Your task to perform on an android device: Do I have any events tomorrow? Image 0: 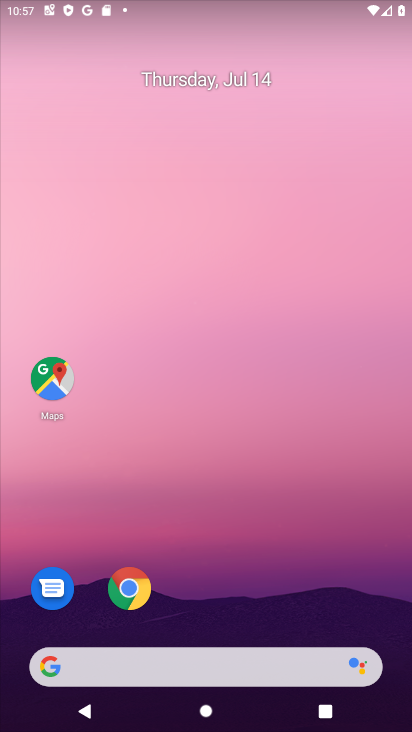
Step 0: drag from (179, 628) to (289, 137)
Your task to perform on an android device: Do I have any events tomorrow? Image 1: 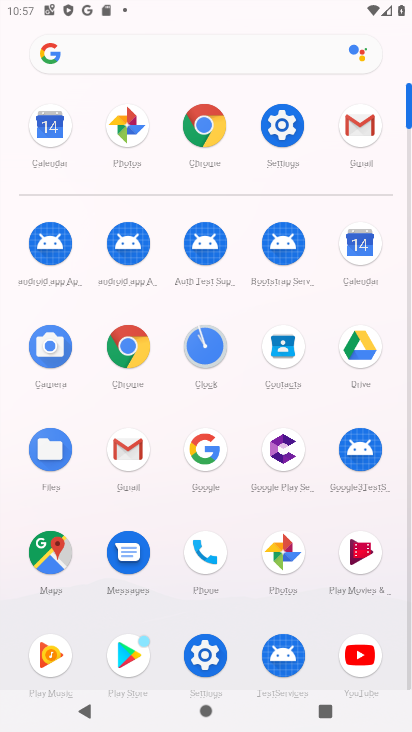
Step 1: click (359, 244)
Your task to perform on an android device: Do I have any events tomorrow? Image 2: 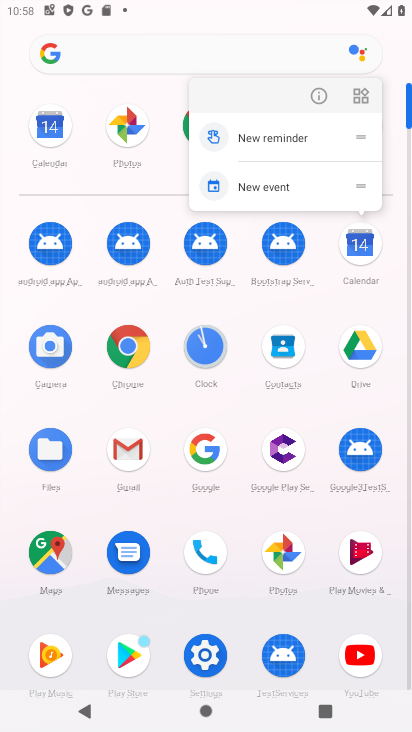
Step 2: click (364, 250)
Your task to perform on an android device: Do I have any events tomorrow? Image 3: 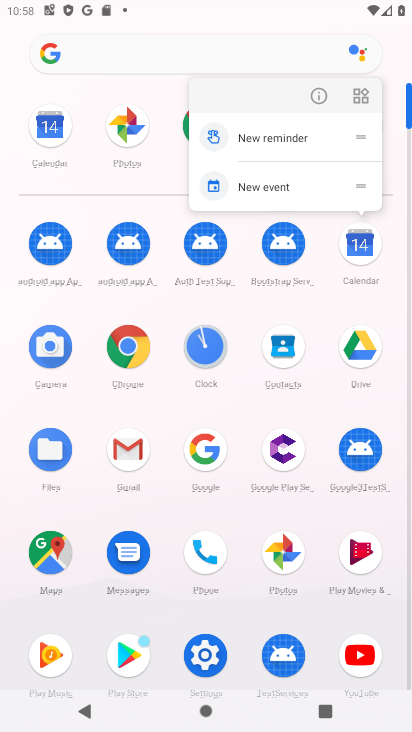
Step 3: click (362, 248)
Your task to perform on an android device: Do I have any events tomorrow? Image 4: 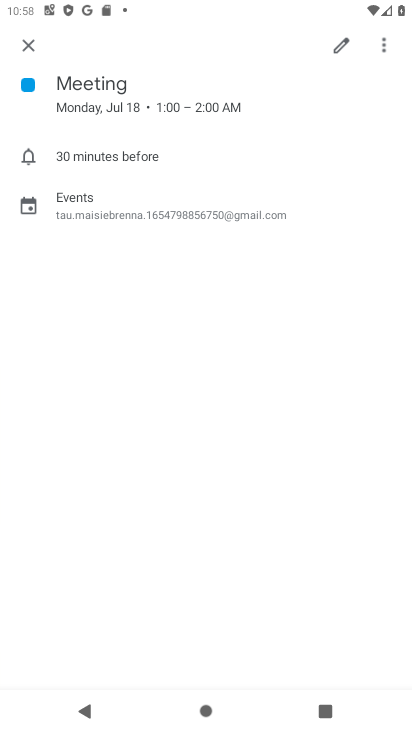
Step 4: click (30, 44)
Your task to perform on an android device: Do I have any events tomorrow? Image 5: 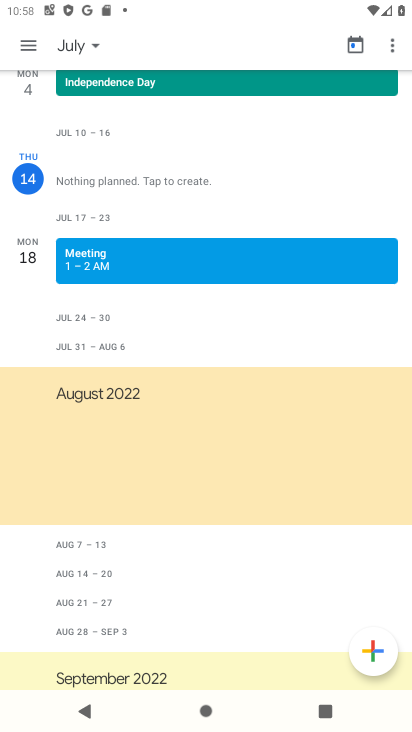
Step 5: click (84, 46)
Your task to perform on an android device: Do I have any events tomorrow? Image 6: 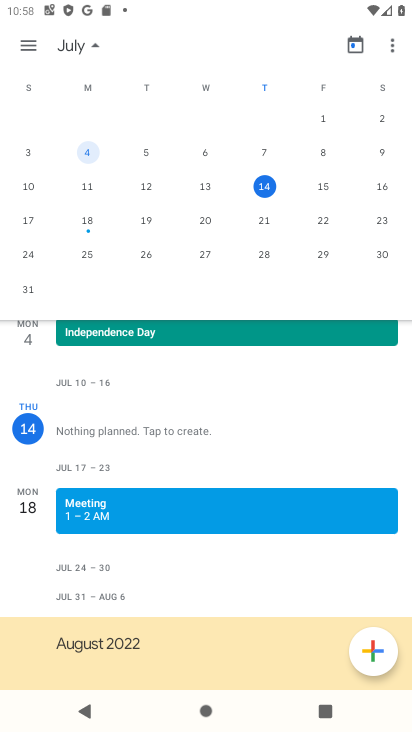
Step 6: click (318, 185)
Your task to perform on an android device: Do I have any events tomorrow? Image 7: 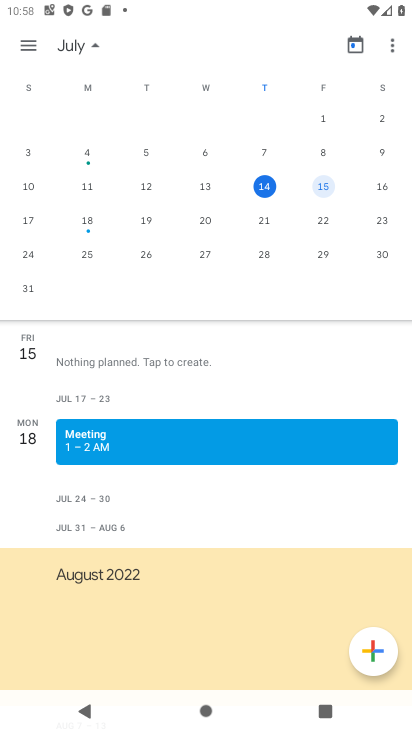
Step 7: click (33, 39)
Your task to perform on an android device: Do I have any events tomorrow? Image 8: 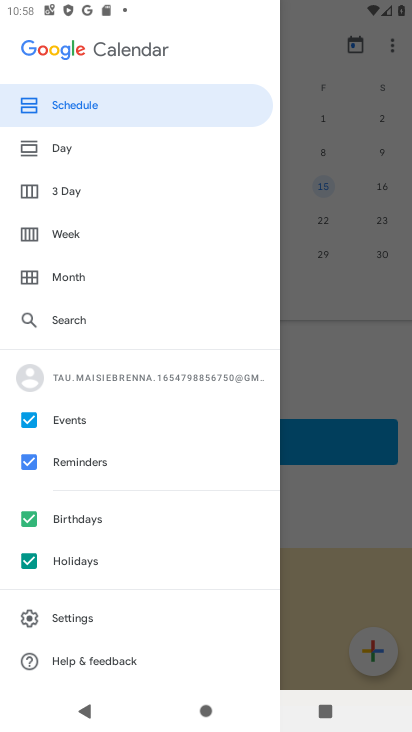
Step 8: click (73, 143)
Your task to perform on an android device: Do I have any events tomorrow? Image 9: 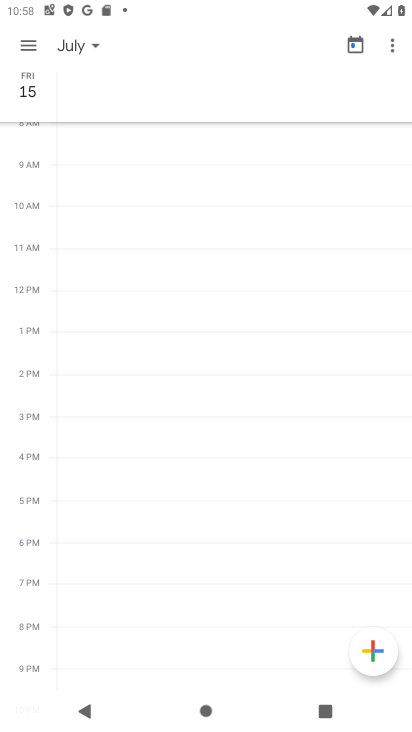
Step 9: click (29, 37)
Your task to perform on an android device: Do I have any events tomorrow? Image 10: 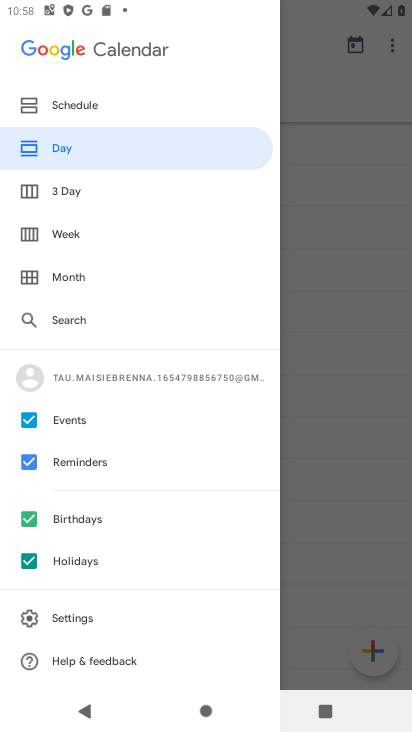
Step 10: click (53, 110)
Your task to perform on an android device: Do I have any events tomorrow? Image 11: 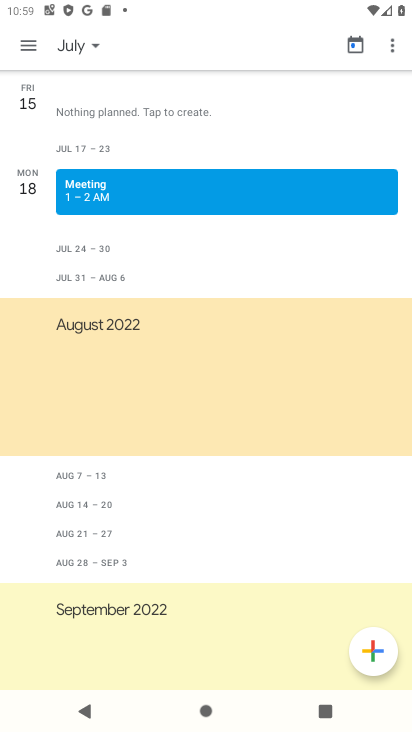
Step 11: task complete